Your task to perform on an android device: turn notification dots off Image 0: 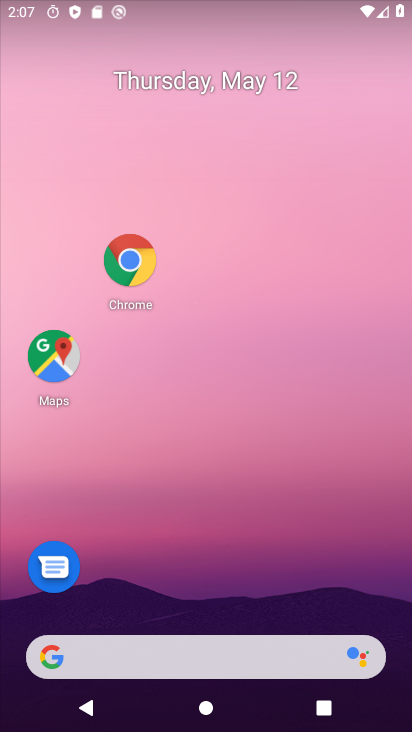
Step 0: drag from (227, 637) to (195, 193)
Your task to perform on an android device: turn notification dots off Image 1: 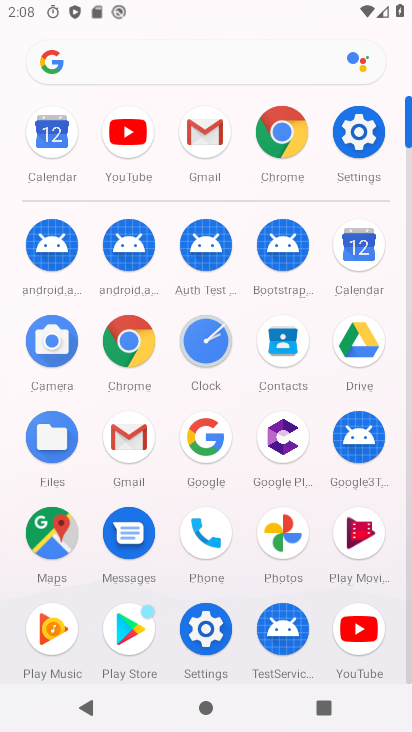
Step 1: click (352, 139)
Your task to perform on an android device: turn notification dots off Image 2: 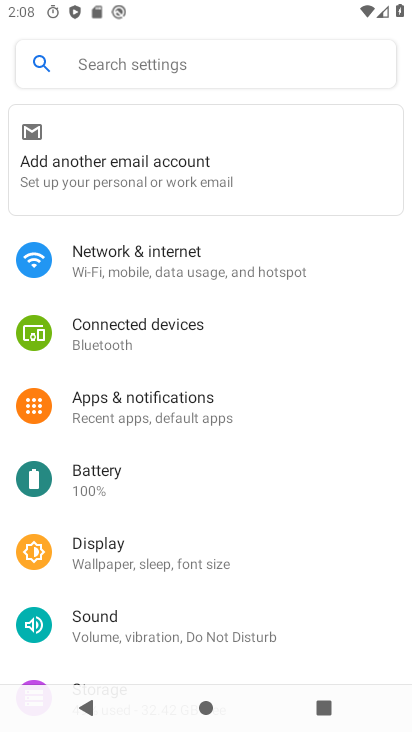
Step 2: click (186, 408)
Your task to perform on an android device: turn notification dots off Image 3: 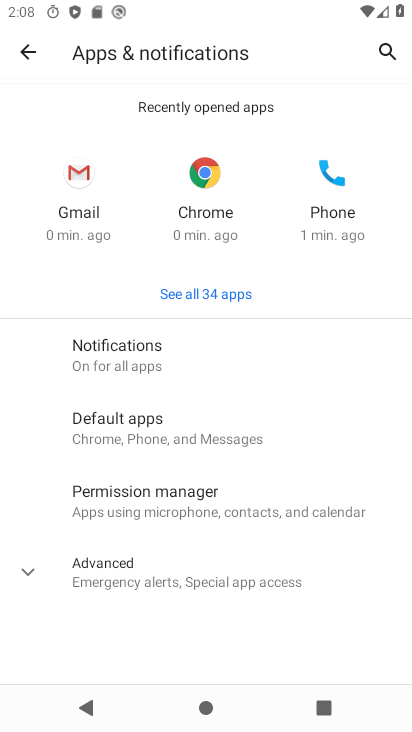
Step 3: click (129, 368)
Your task to perform on an android device: turn notification dots off Image 4: 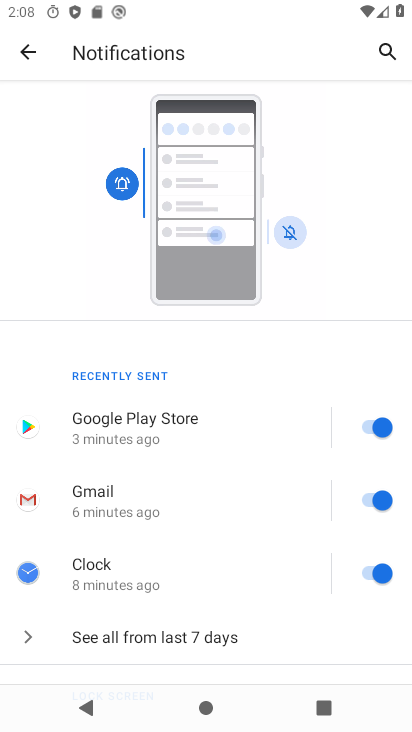
Step 4: drag from (153, 613) to (115, 371)
Your task to perform on an android device: turn notification dots off Image 5: 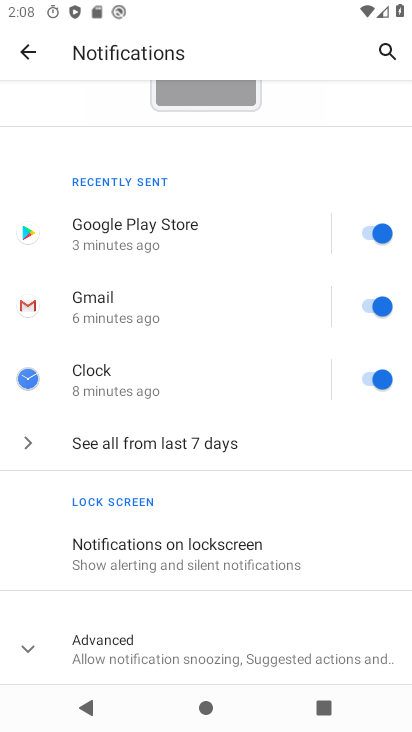
Step 5: click (137, 655)
Your task to perform on an android device: turn notification dots off Image 6: 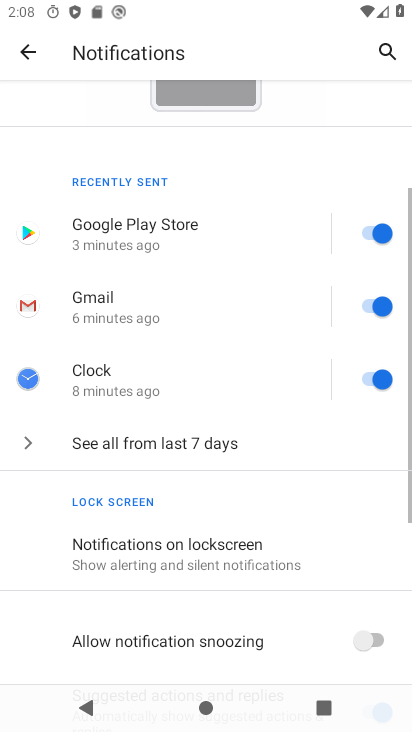
Step 6: drag from (137, 650) to (145, 365)
Your task to perform on an android device: turn notification dots off Image 7: 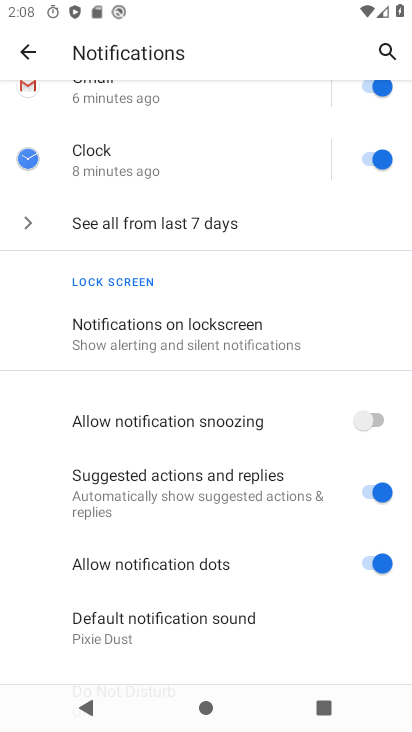
Step 7: drag from (153, 635) to (149, 448)
Your task to perform on an android device: turn notification dots off Image 8: 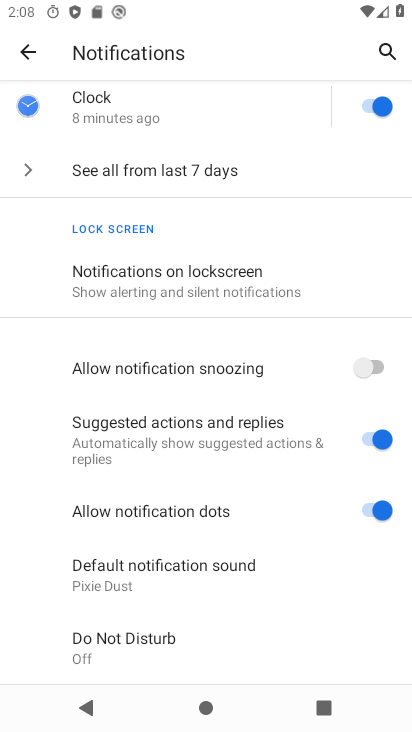
Step 8: click (373, 512)
Your task to perform on an android device: turn notification dots off Image 9: 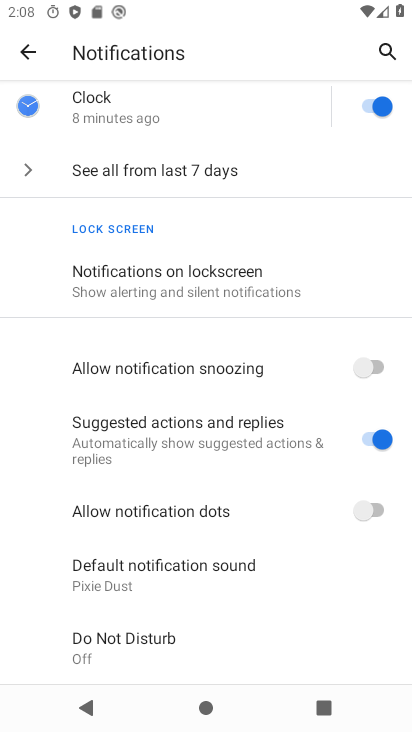
Step 9: task complete